Your task to perform on an android device: Go to privacy settings Image 0: 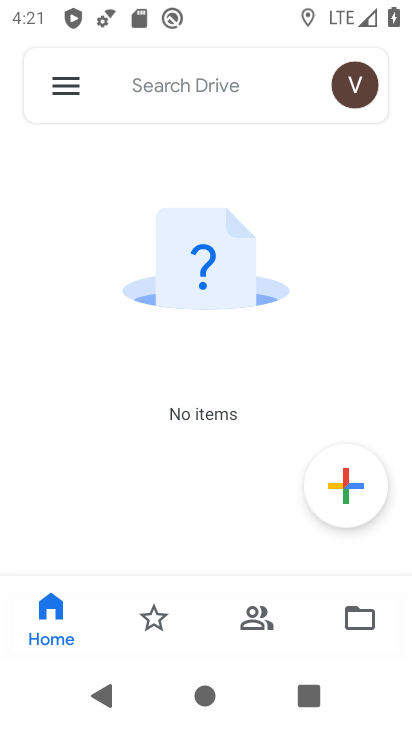
Step 0: press home button
Your task to perform on an android device: Go to privacy settings Image 1: 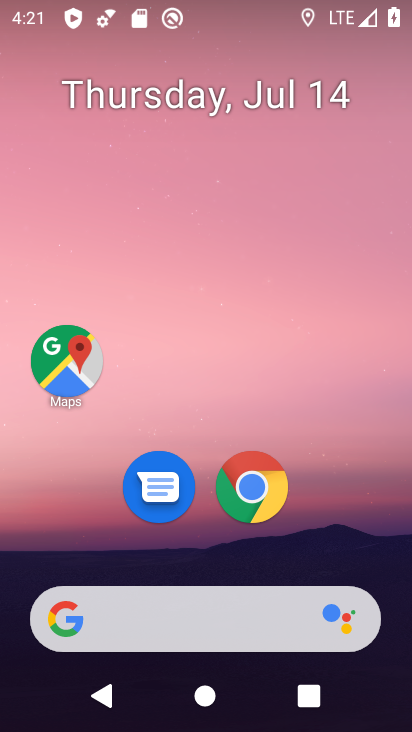
Step 1: drag from (393, 565) to (344, 148)
Your task to perform on an android device: Go to privacy settings Image 2: 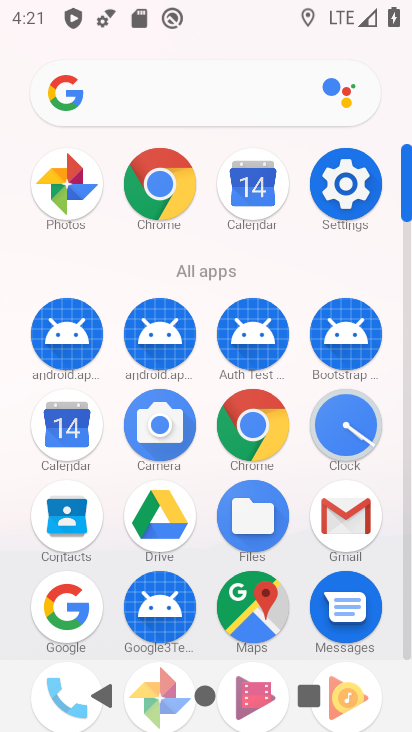
Step 2: click (362, 190)
Your task to perform on an android device: Go to privacy settings Image 3: 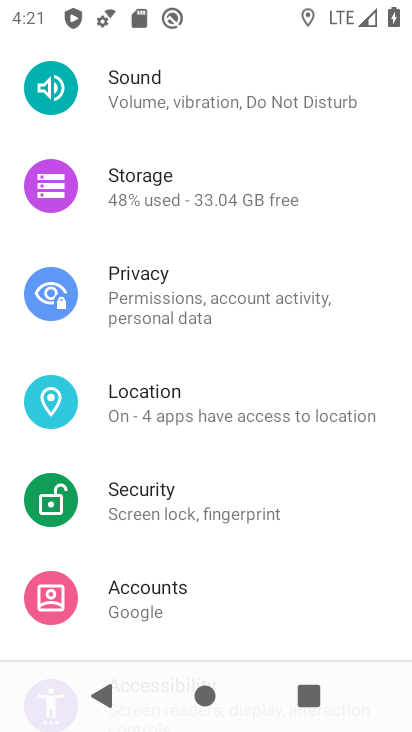
Step 3: click (248, 286)
Your task to perform on an android device: Go to privacy settings Image 4: 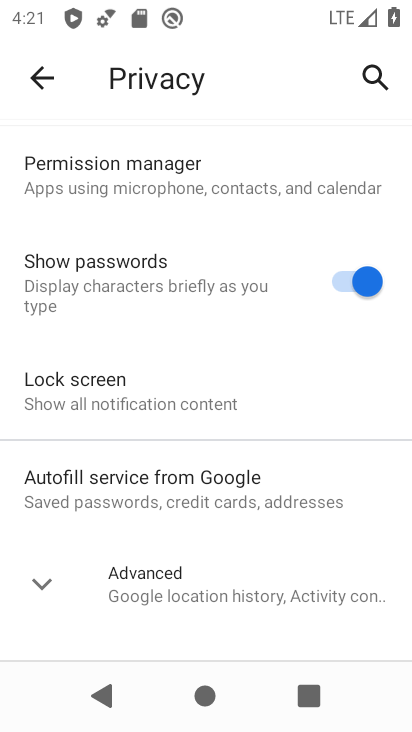
Step 4: task complete